Your task to perform on an android device: read, delete, or share a saved page in the chrome app Image 0: 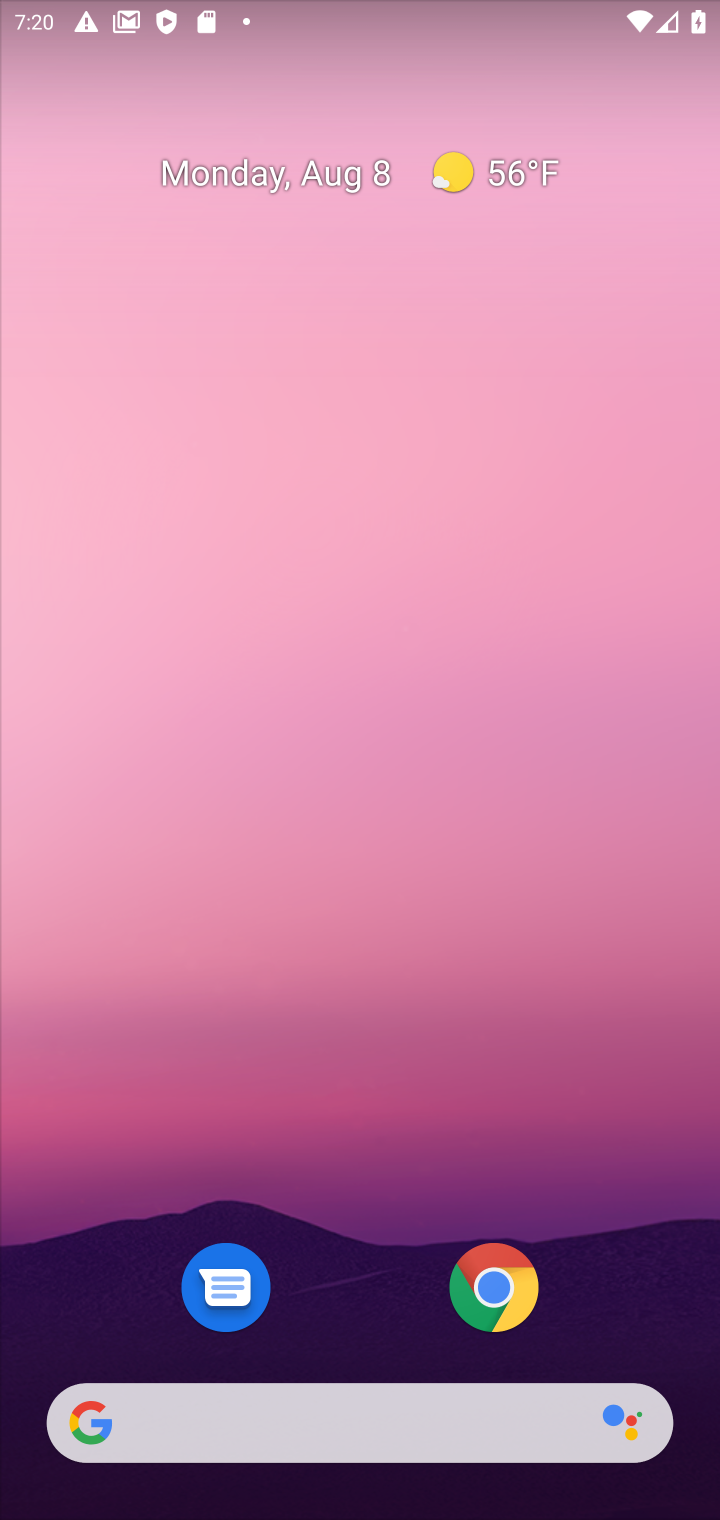
Step 0: drag from (345, 1136) to (311, 425)
Your task to perform on an android device: read, delete, or share a saved page in the chrome app Image 1: 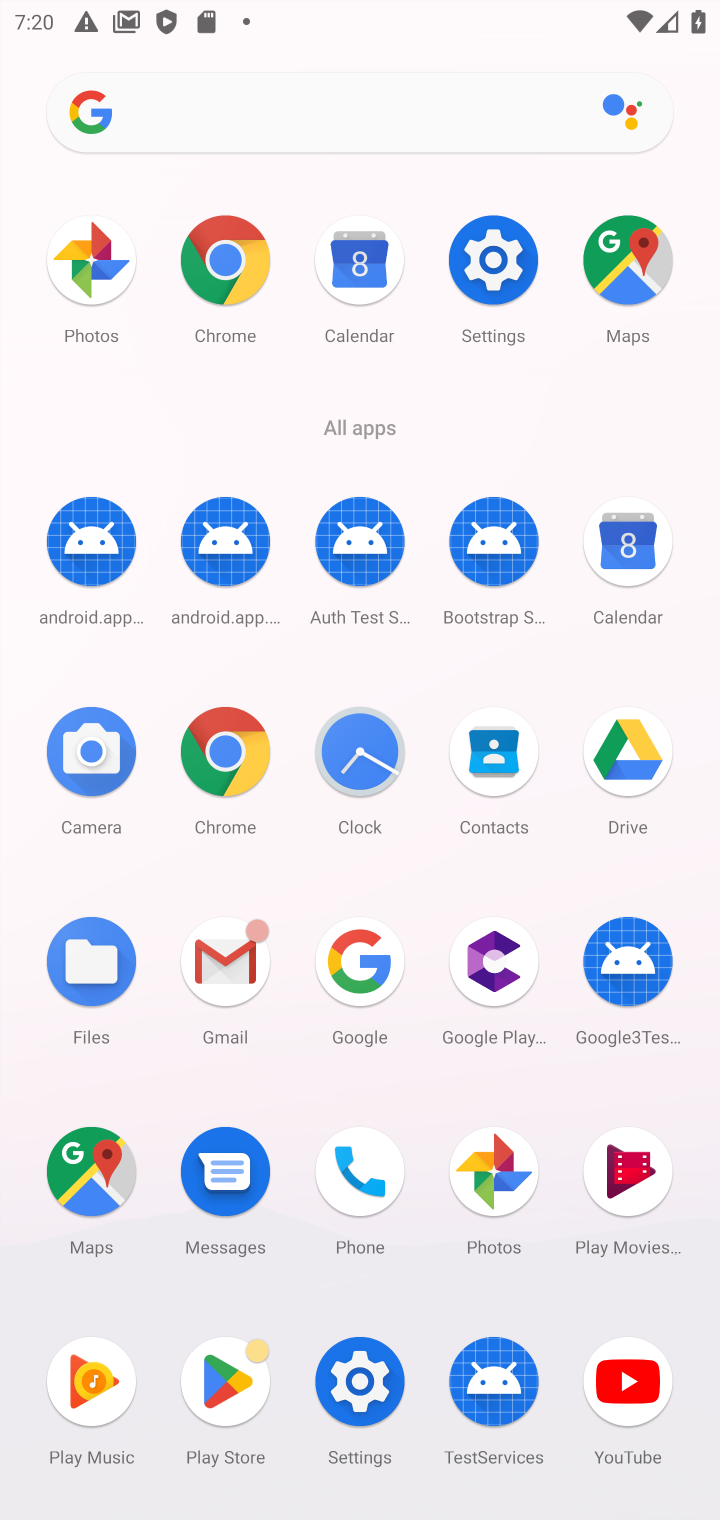
Step 1: click (239, 970)
Your task to perform on an android device: read, delete, or share a saved page in the chrome app Image 2: 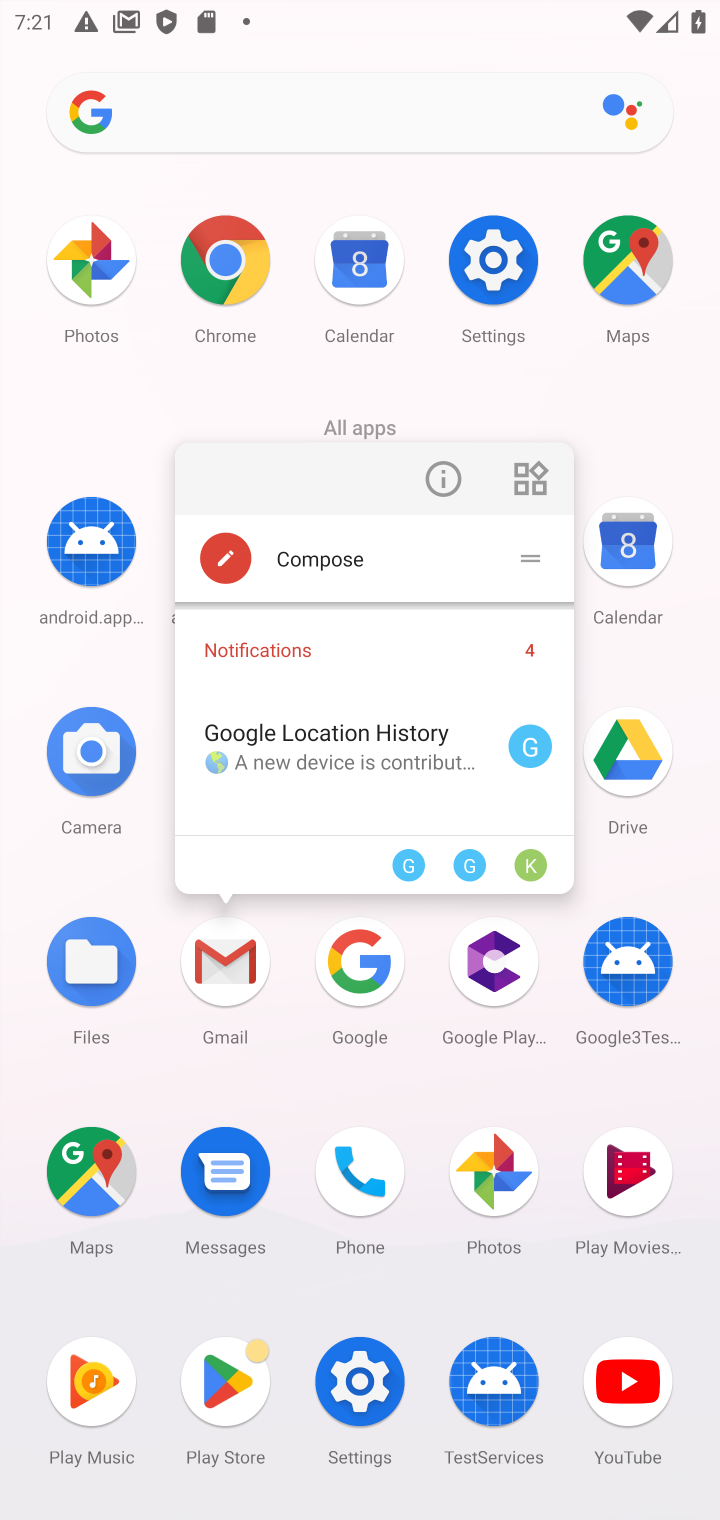
Step 2: press home button
Your task to perform on an android device: read, delete, or share a saved page in the chrome app Image 3: 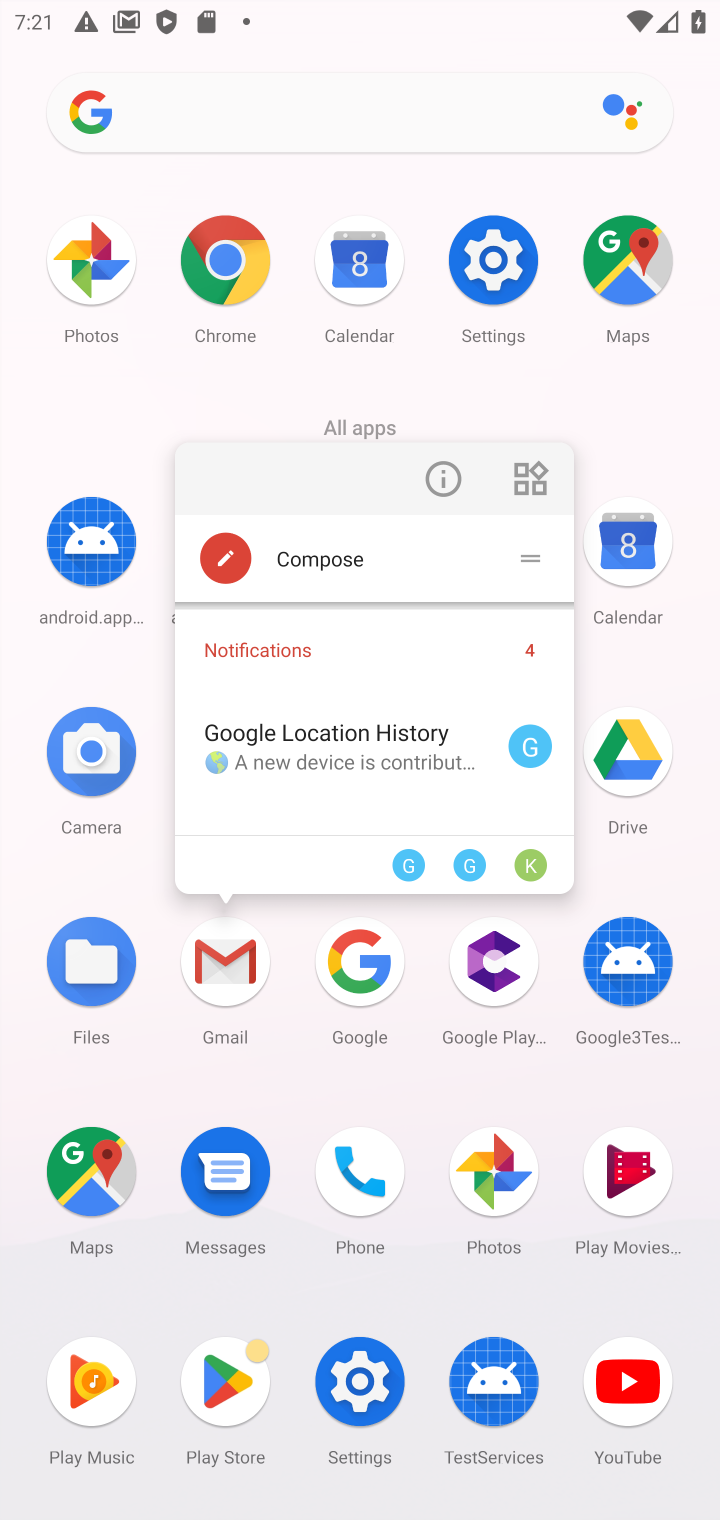
Step 3: press home button
Your task to perform on an android device: read, delete, or share a saved page in the chrome app Image 4: 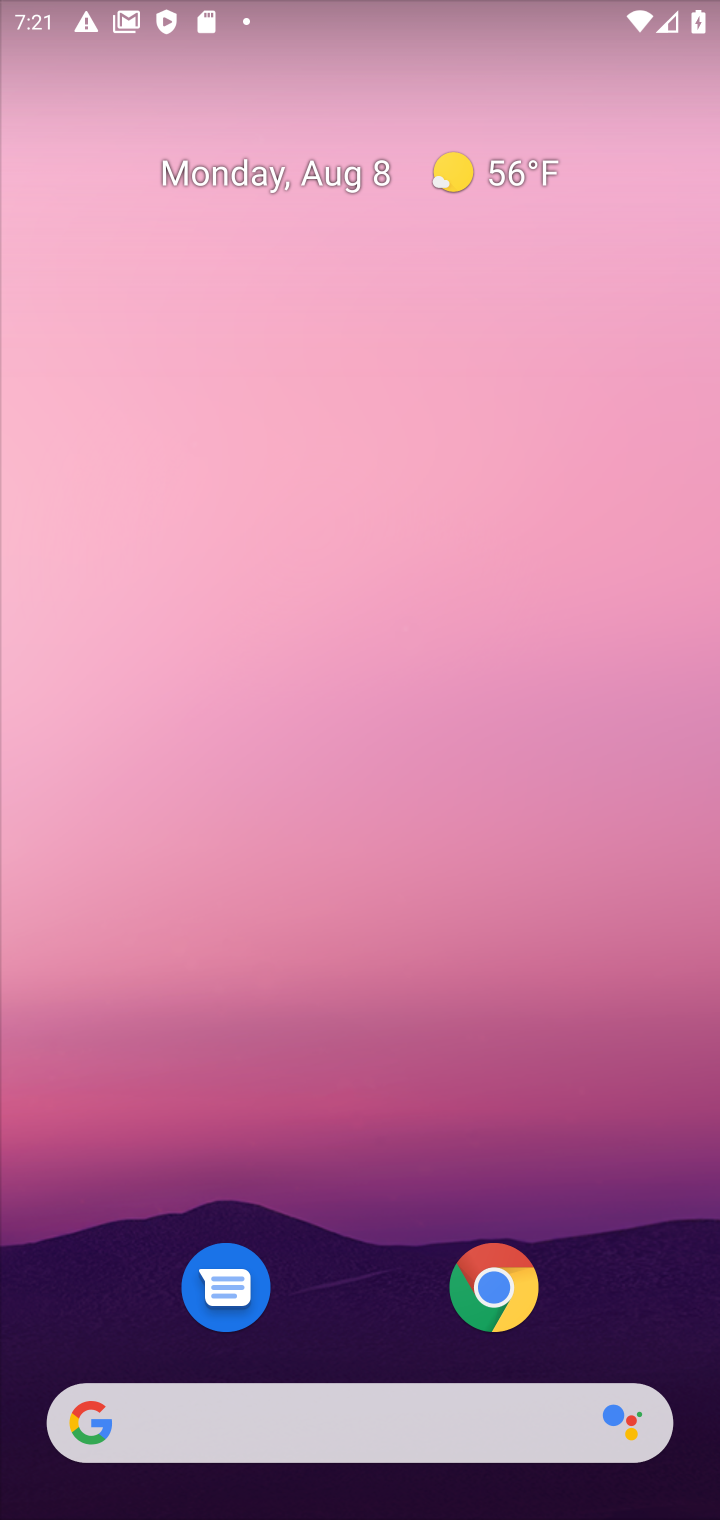
Step 4: drag from (368, 1156) to (372, 426)
Your task to perform on an android device: read, delete, or share a saved page in the chrome app Image 5: 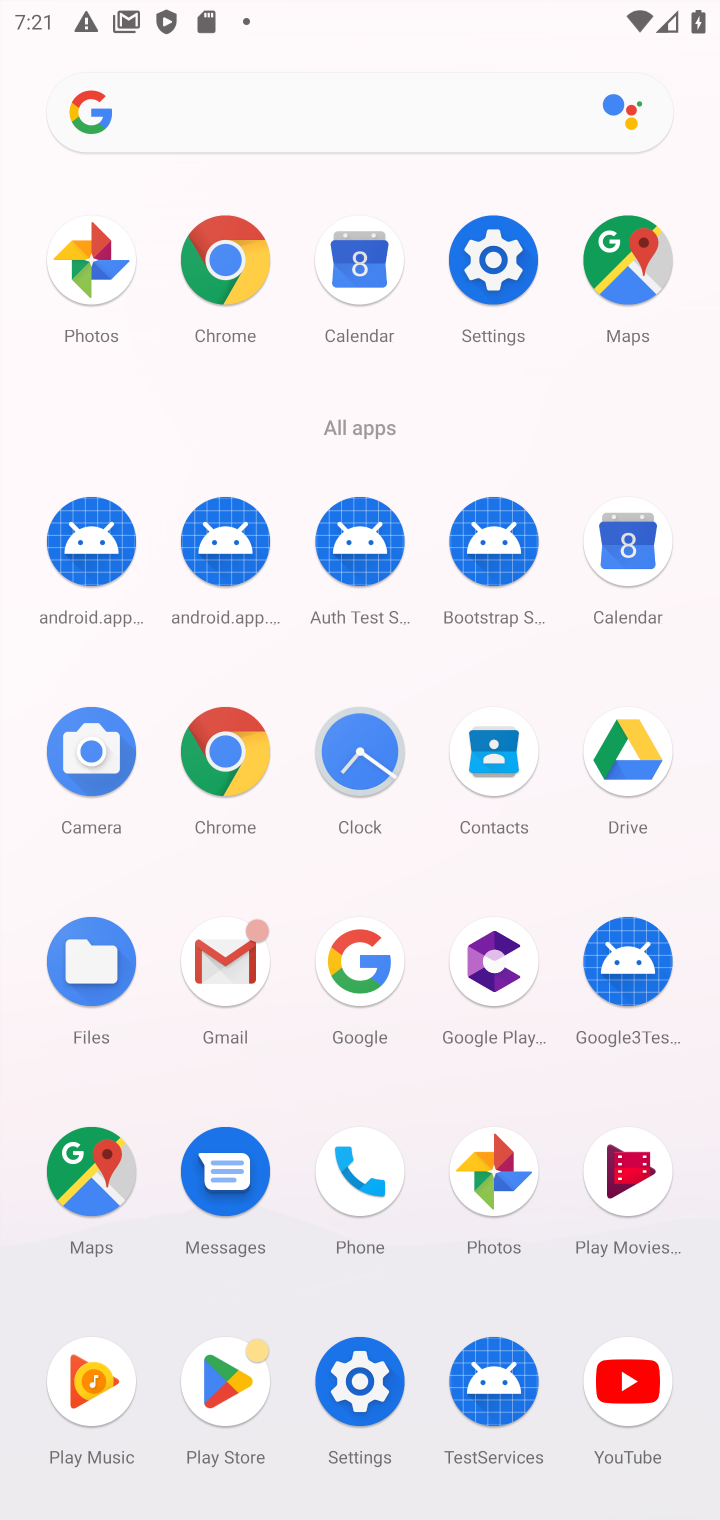
Step 5: click (239, 248)
Your task to perform on an android device: read, delete, or share a saved page in the chrome app Image 6: 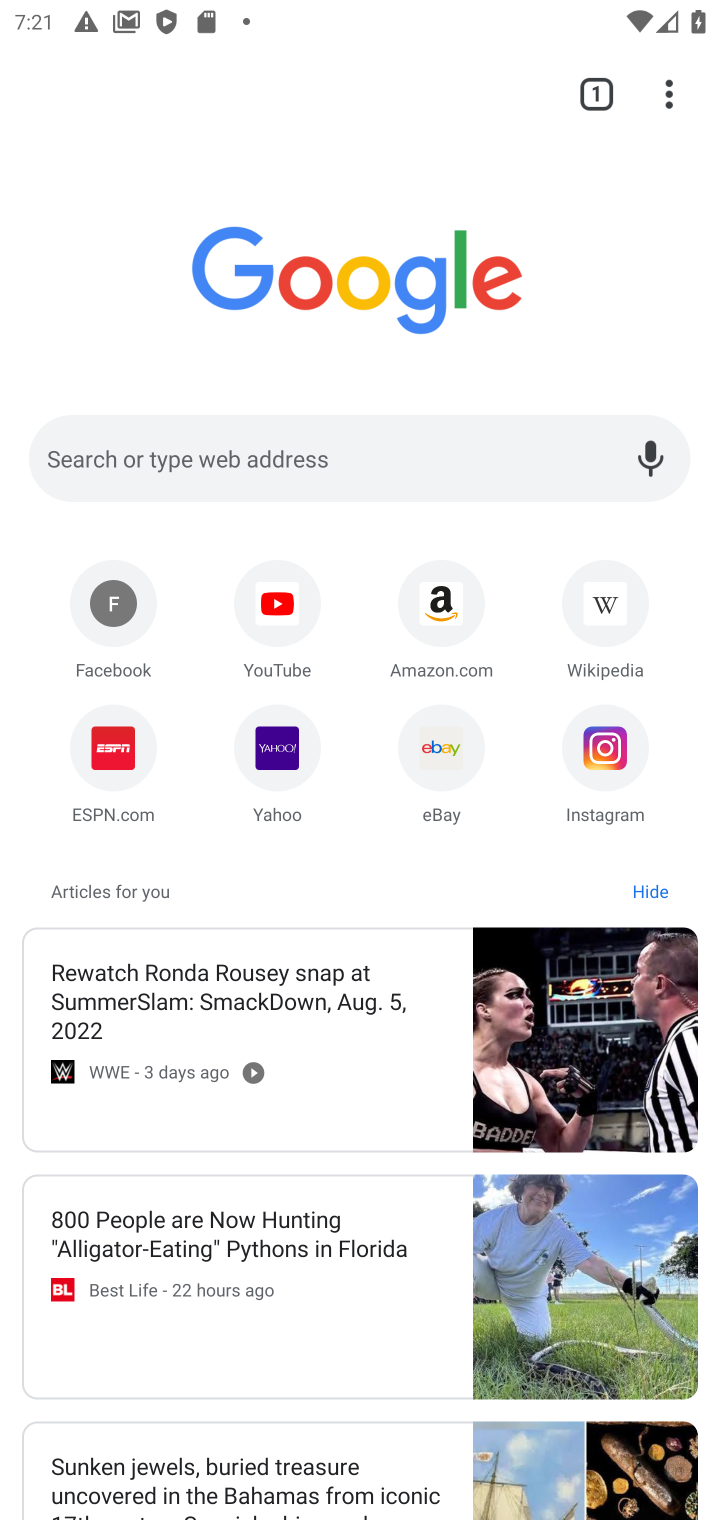
Step 6: press home button
Your task to perform on an android device: read, delete, or share a saved page in the chrome app Image 7: 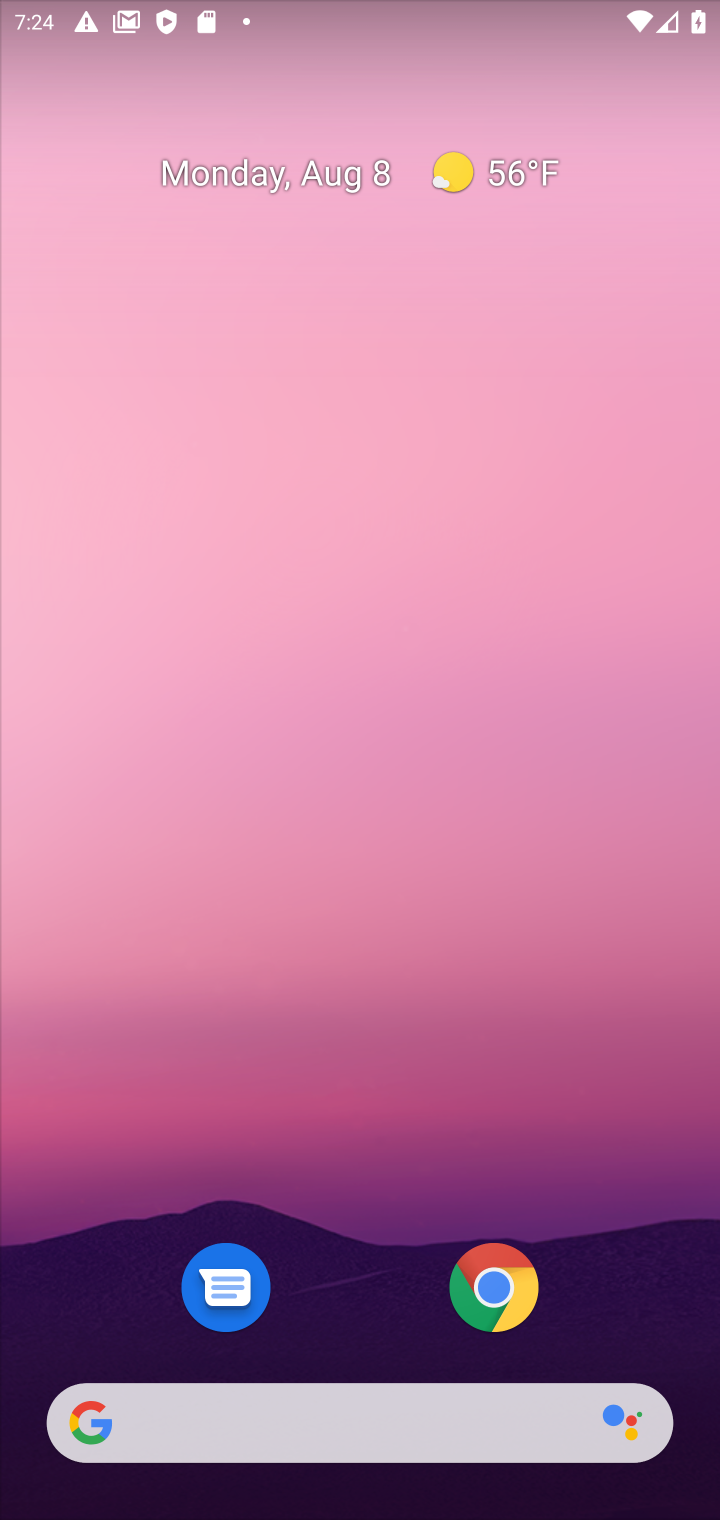
Step 7: drag from (319, 1184) to (367, 464)
Your task to perform on an android device: read, delete, or share a saved page in the chrome app Image 8: 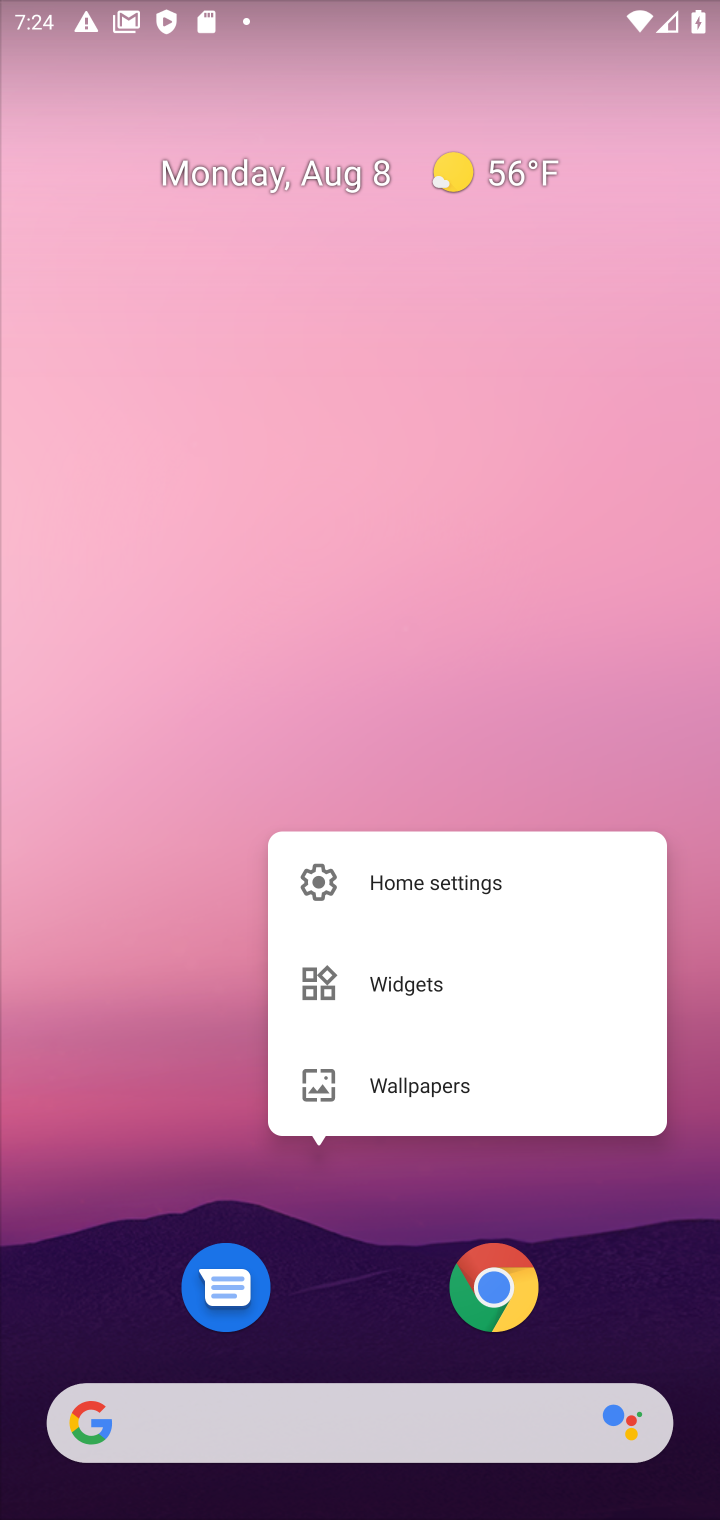
Step 8: click (77, 947)
Your task to perform on an android device: read, delete, or share a saved page in the chrome app Image 9: 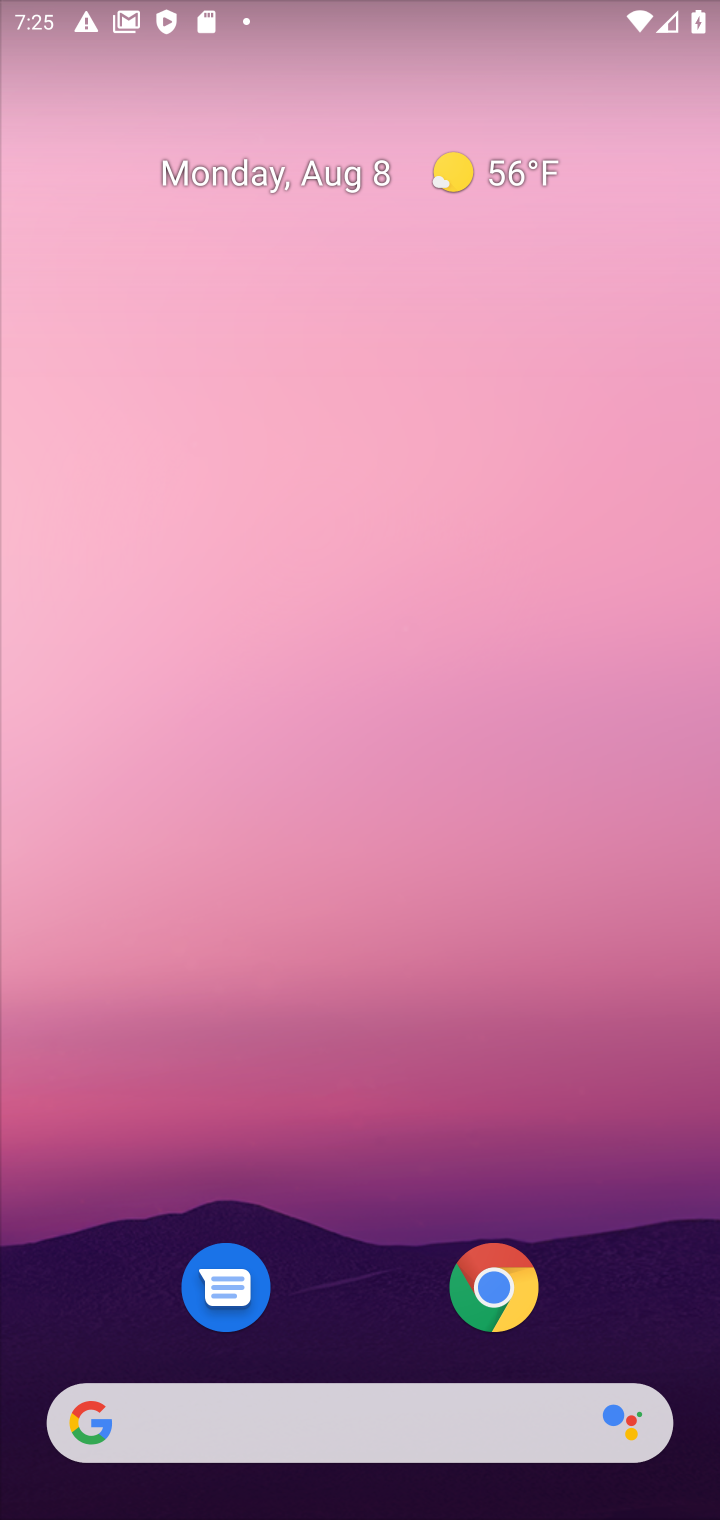
Step 9: click (77, 947)
Your task to perform on an android device: read, delete, or share a saved page in the chrome app Image 10: 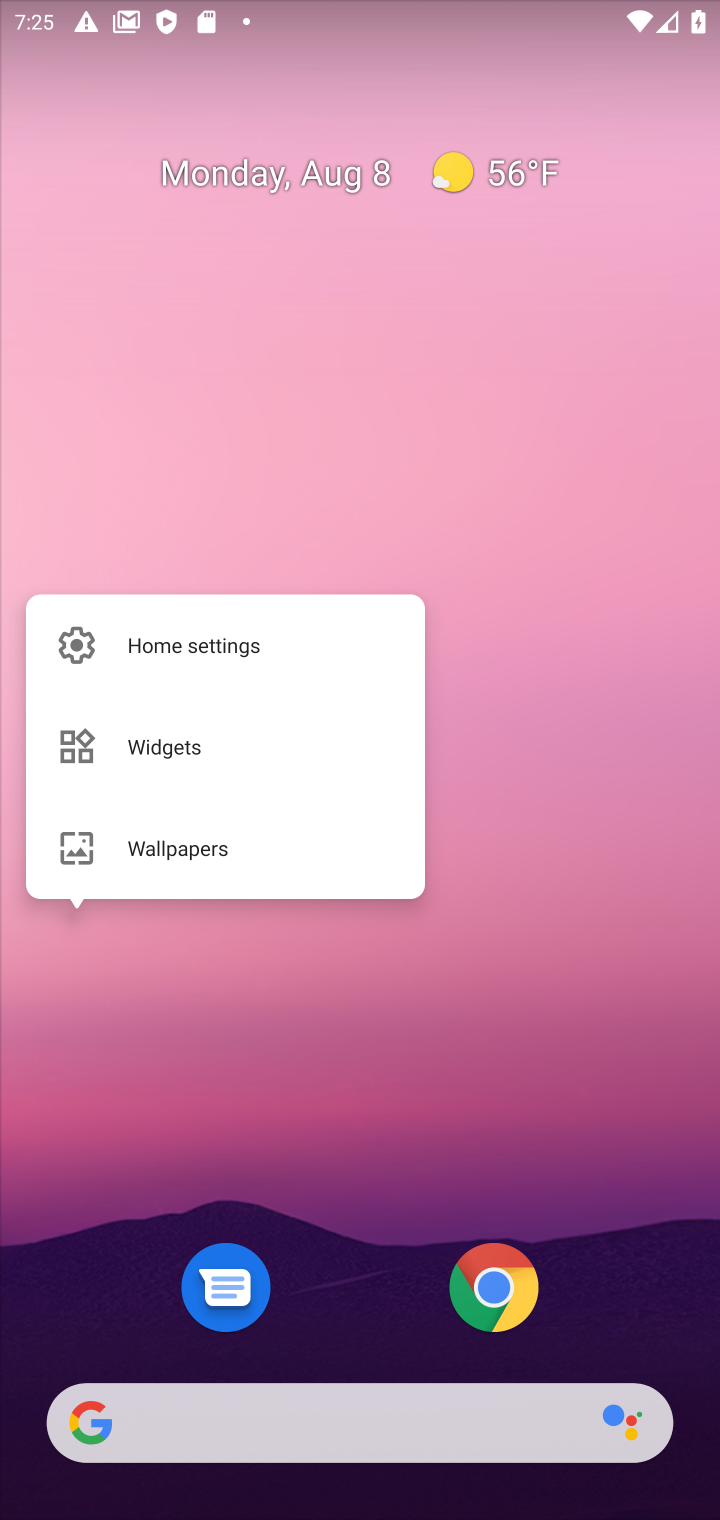
Step 10: click (327, 1214)
Your task to perform on an android device: read, delete, or share a saved page in the chrome app Image 11: 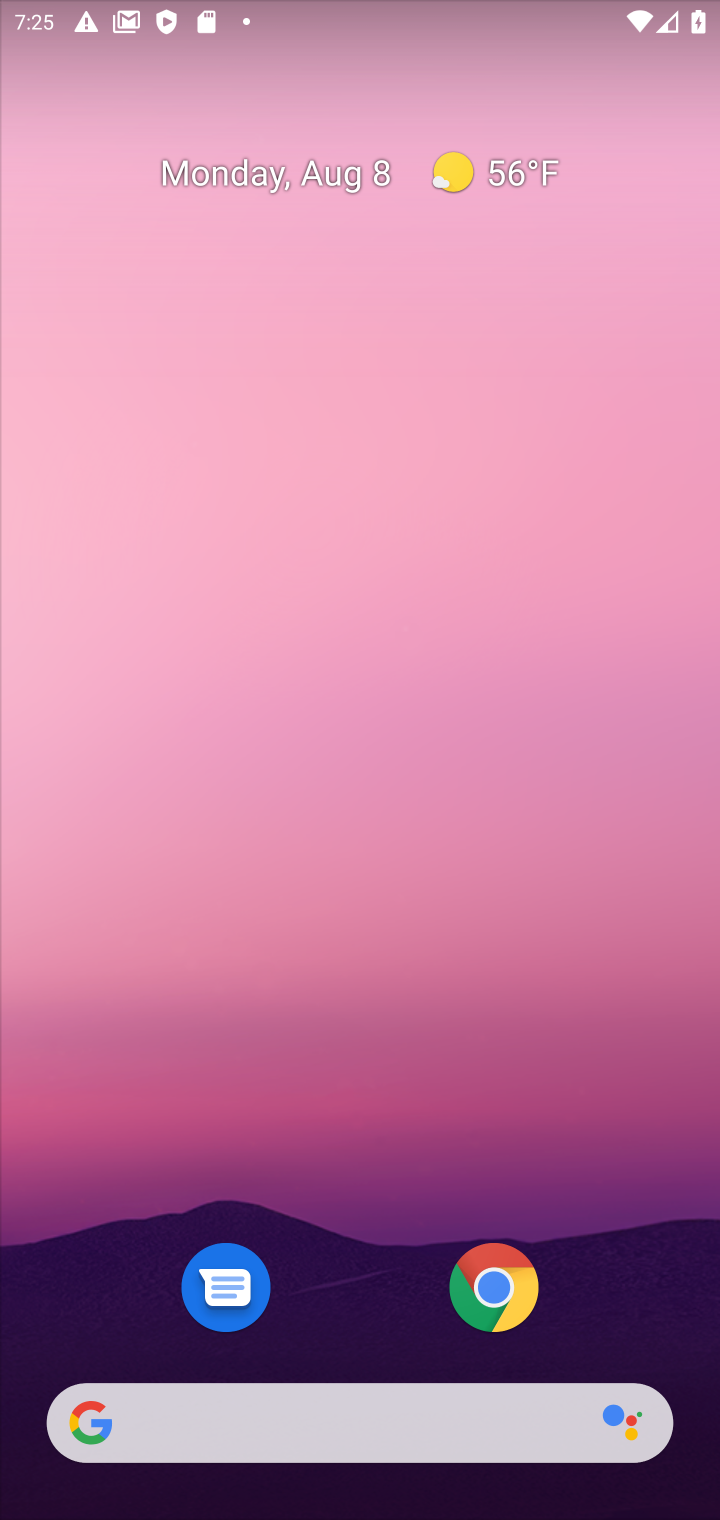
Step 11: task complete